Your task to perform on an android device: Search for Italian restaurants on Maps Image 0: 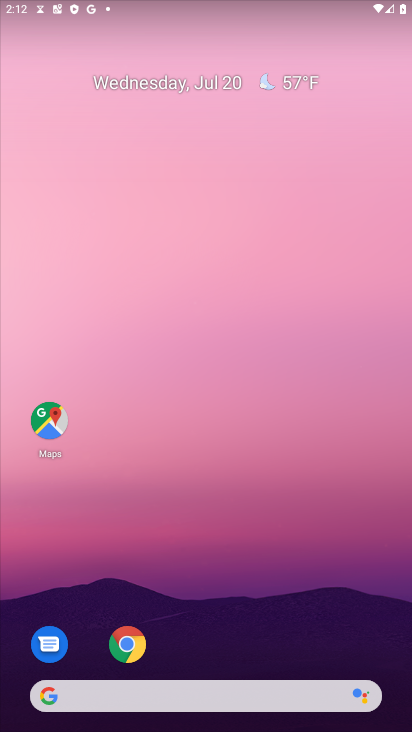
Step 0: press home button
Your task to perform on an android device: Search for Italian restaurants on Maps Image 1: 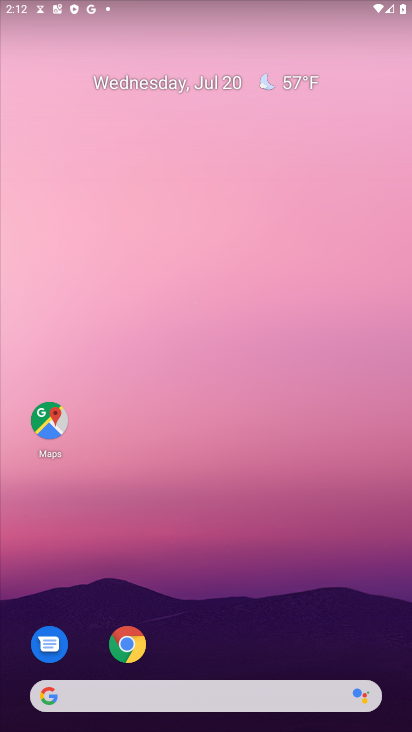
Step 1: drag from (246, 647) to (272, 5)
Your task to perform on an android device: Search for Italian restaurants on Maps Image 2: 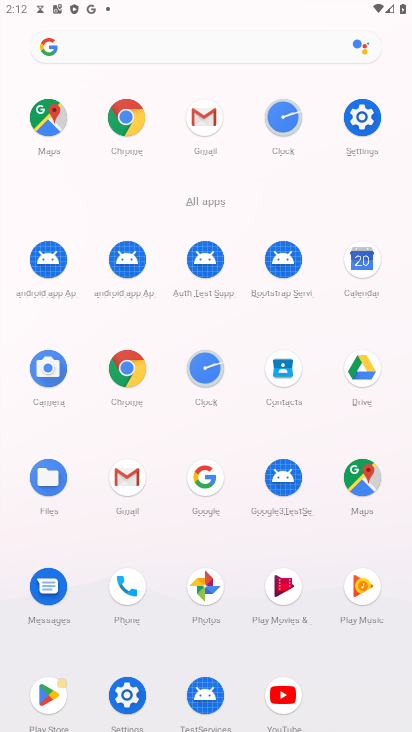
Step 2: click (49, 126)
Your task to perform on an android device: Search for Italian restaurants on Maps Image 3: 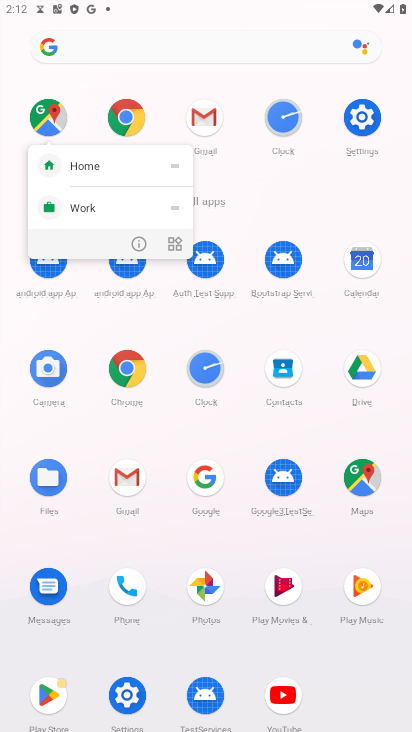
Step 3: click (51, 116)
Your task to perform on an android device: Search for Italian restaurants on Maps Image 4: 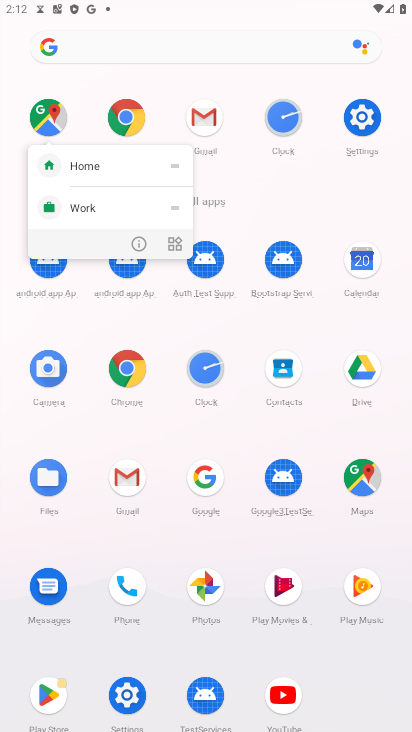
Step 4: click (51, 116)
Your task to perform on an android device: Search for Italian restaurants on Maps Image 5: 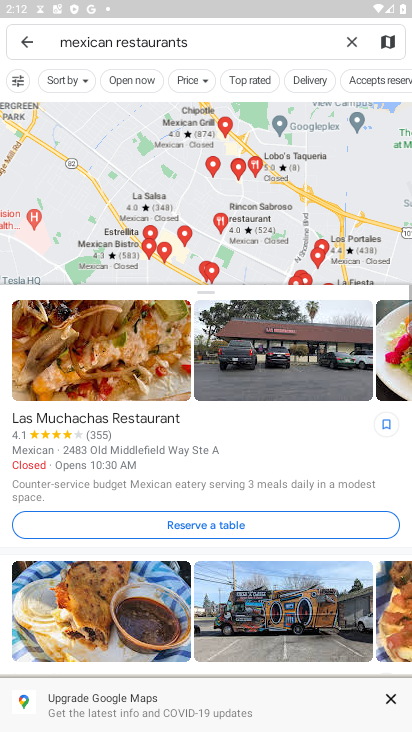
Step 5: click (346, 40)
Your task to perform on an android device: Search for Italian restaurants on Maps Image 6: 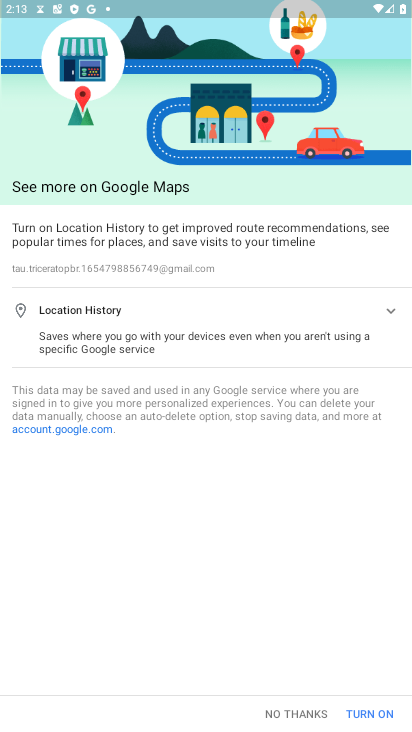
Step 6: click (284, 716)
Your task to perform on an android device: Search for Italian restaurants on Maps Image 7: 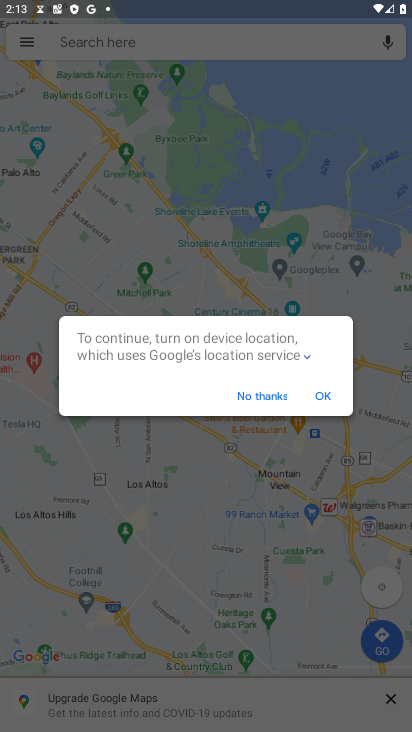
Step 7: click (325, 392)
Your task to perform on an android device: Search for Italian restaurants on Maps Image 8: 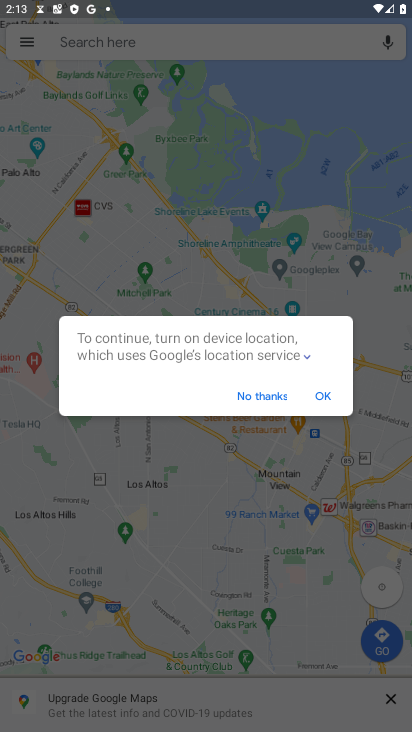
Step 8: click (163, 40)
Your task to perform on an android device: Search for Italian restaurants on Maps Image 9: 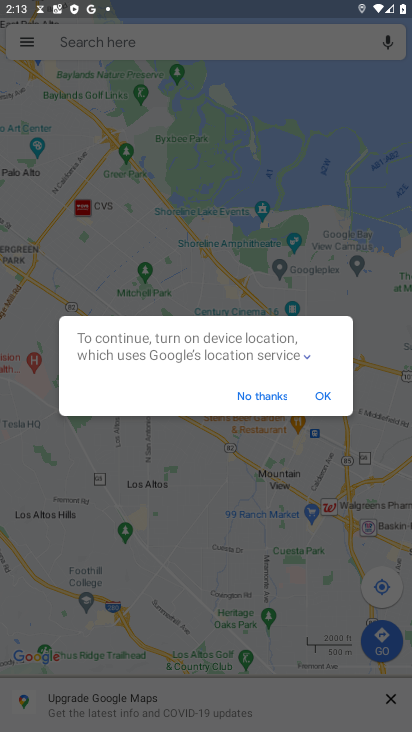
Step 9: click (324, 391)
Your task to perform on an android device: Search for Italian restaurants on Maps Image 10: 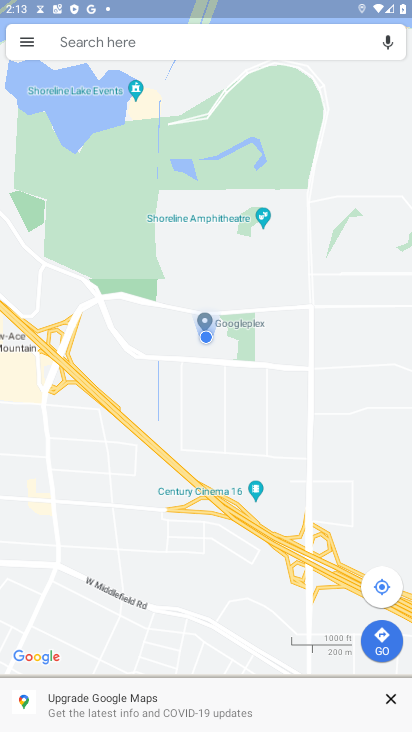
Step 10: click (112, 39)
Your task to perform on an android device: Search for Italian restaurants on Maps Image 11: 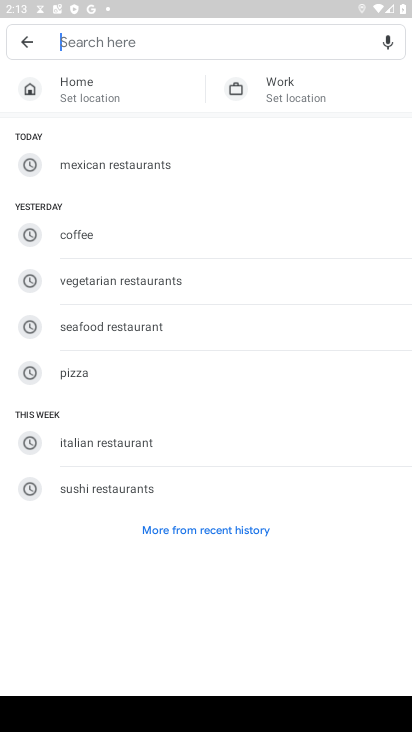
Step 11: click (122, 443)
Your task to perform on an android device: Search for Italian restaurants on Maps Image 12: 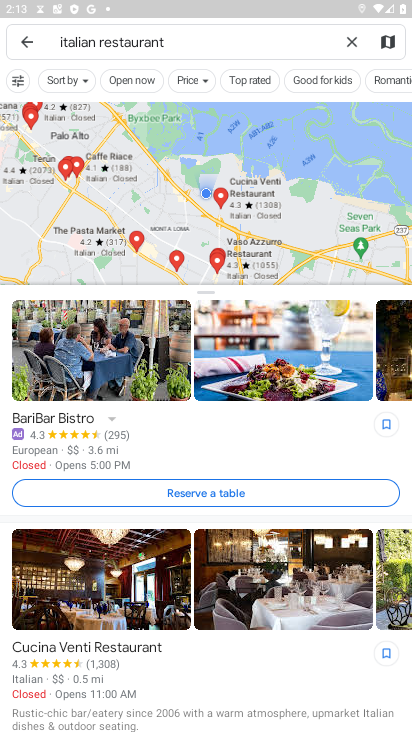
Step 12: task complete